Your task to perform on an android device: Open calendar and show me the first week of next month Image 0: 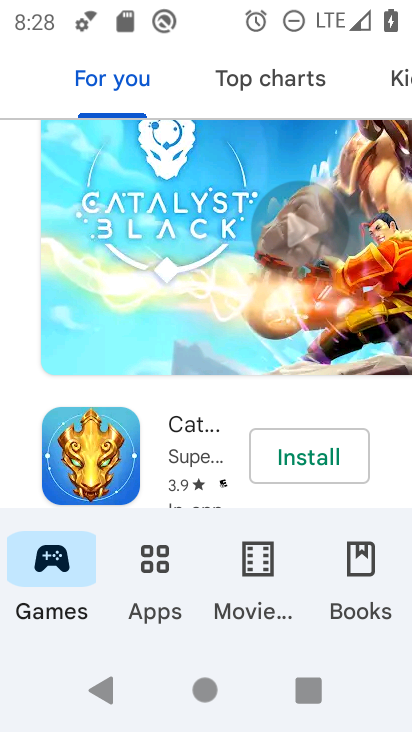
Step 0: press home button
Your task to perform on an android device: Open calendar and show me the first week of next month Image 1: 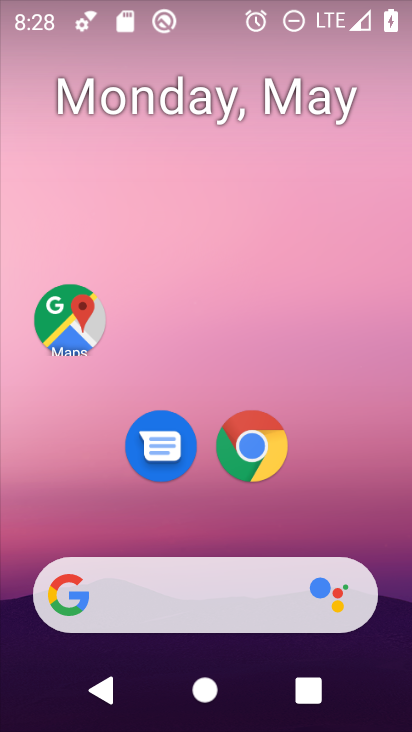
Step 1: drag from (331, 516) to (227, 116)
Your task to perform on an android device: Open calendar and show me the first week of next month Image 2: 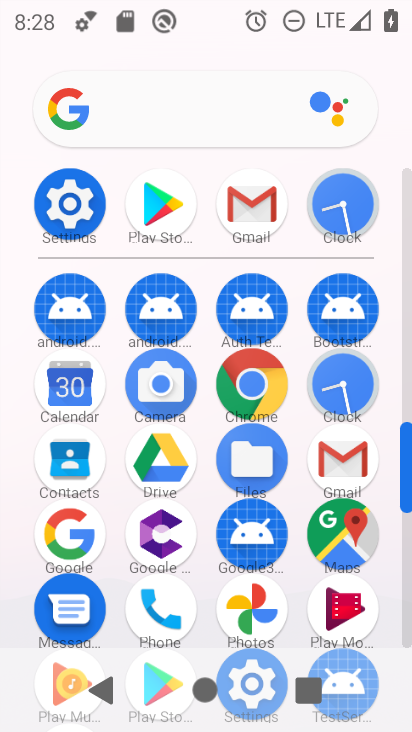
Step 2: click (76, 368)
Your task to perform on an android device: Open calendar and show me the first week of next month Image 3: 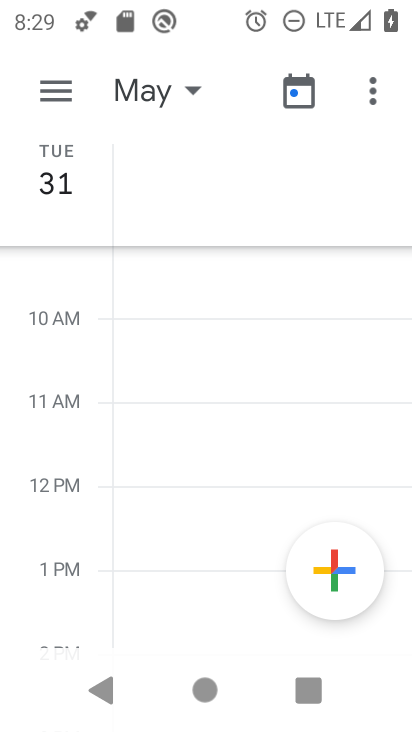
Step 3: click (58, 84)
Your task to perform on an android device: Open calendar and show me the first week of next month Image 4: 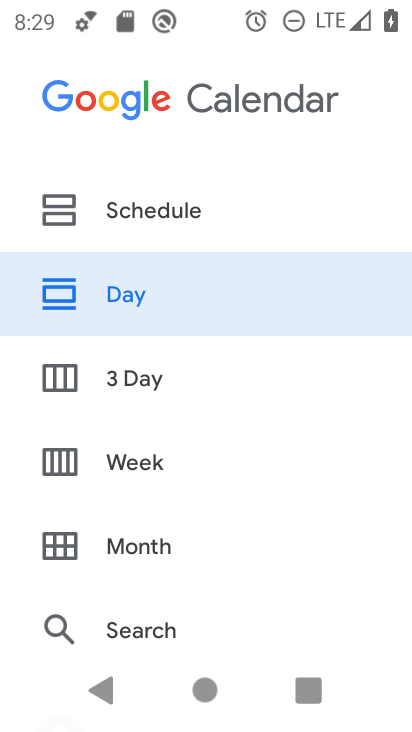
Step 4: click (137, 462)
Your task to perform on an android device: Open calendar and show me the first week of next month Image 5: 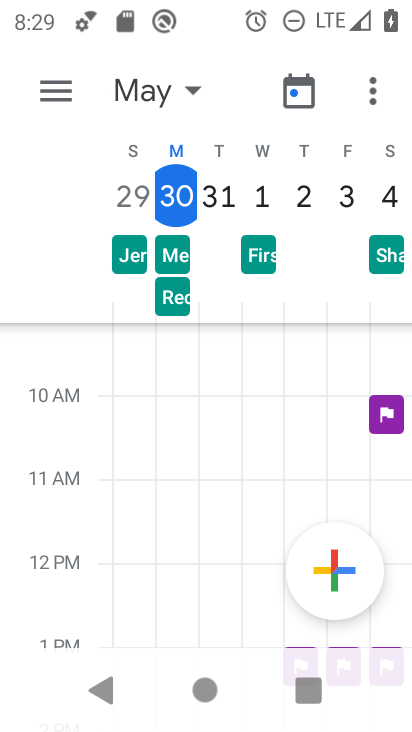
Step 5: click (192, 88)
Your task to perform on an android device: Open calendar and show me the first week of next month Image 6: 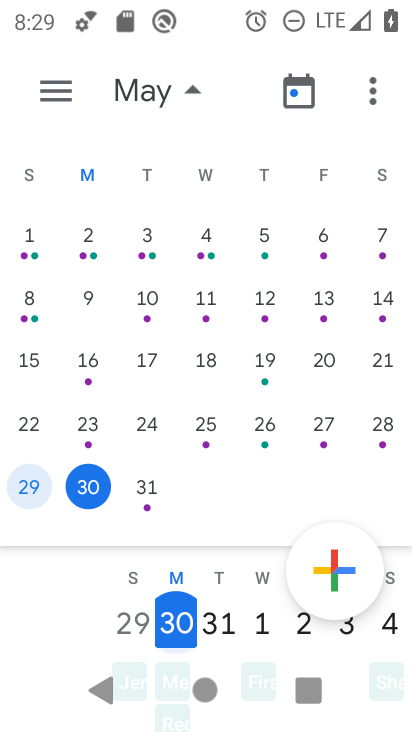
Step 6: drag from (364, 300) to (77, 293)
Your task to perform on an android device: Open calendar and show me the first week of next month Image 7: 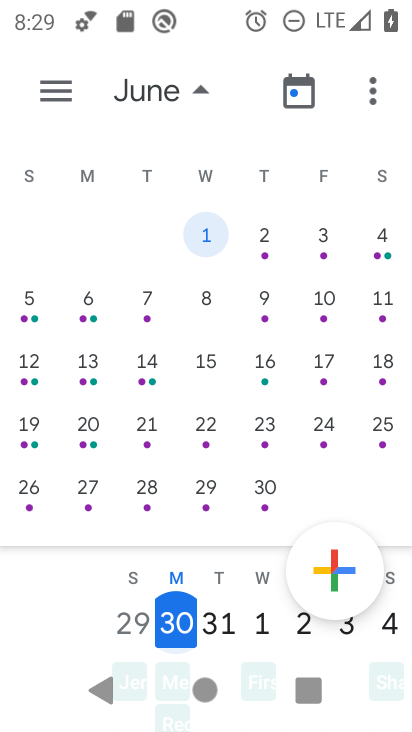
Step 7: click (215, 236)
Your task to perform on an android device: Open calendar and show me the first week of next month Image 8: 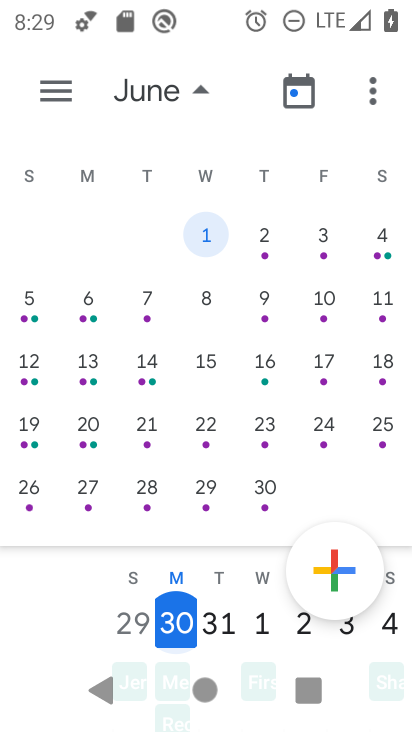
Step 8: task complete